Your task to perform on an android device: toggle priority inbox in the gmail app Image 0: 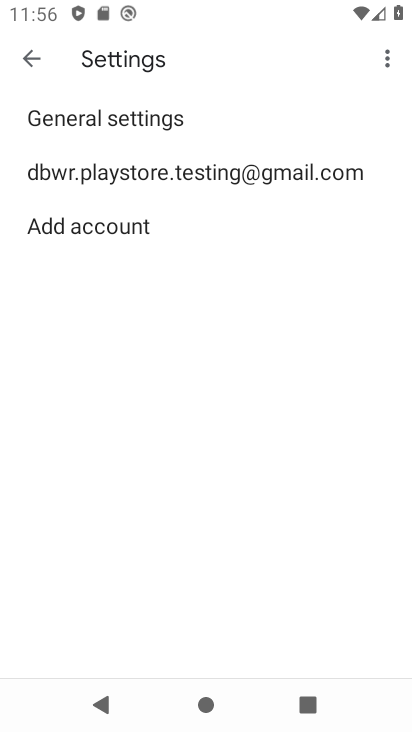
Step 0: press home button
Your task to perform on an android device: toggle priority inbox in the gmail app Image 1: 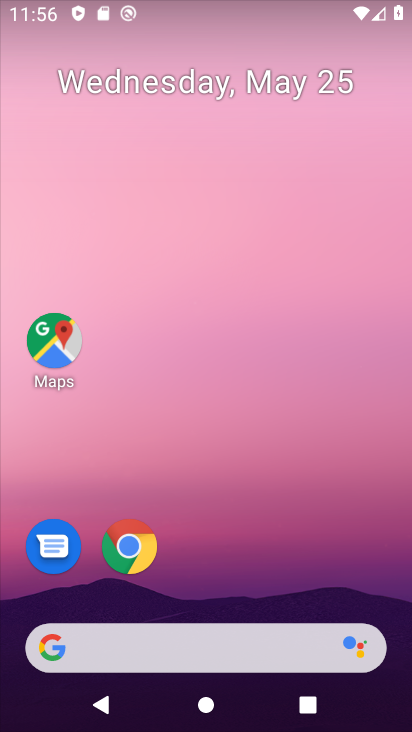
Step 1: drag from (395, 636) to (247, 74)
Your task to perform on an android device: toggle priority inbox in the gmail app Image 2: 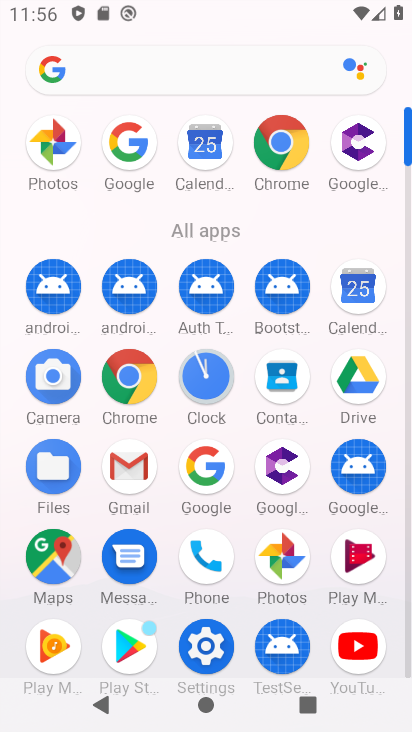
Step 2: click (134, 476)
Your task to perform on an android device: toggle priority inbox in the gmail app Image 3: 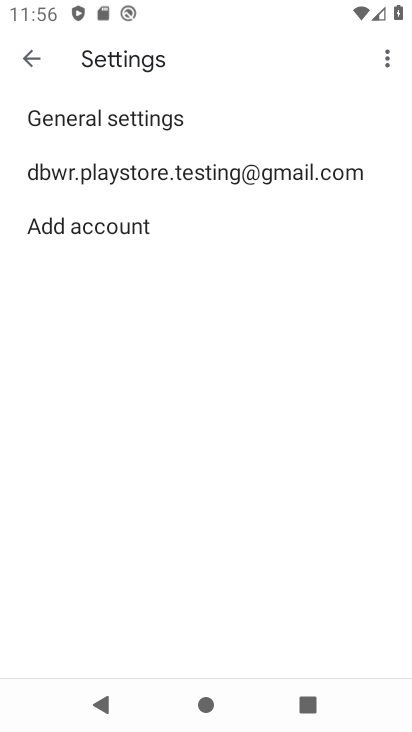
Step 3: click (140, 166)
Your task to perform on an android device: toggle priority inbox in the gmail app Image 4: 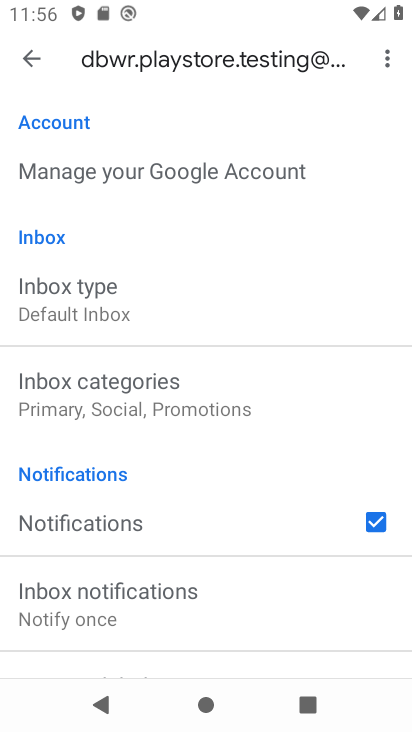
Step 4: drag from (204, 621) to (215, 497)
Your task to perform on an android device: toggle priority inbox in the gmail app Image 5: 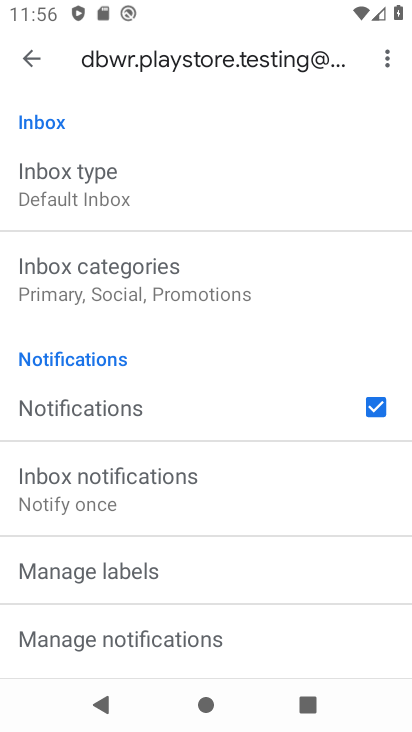
Step 5: click (127, 176)
Your task to perform on an android device: toggle priority inbox in the gmail app Image 6: 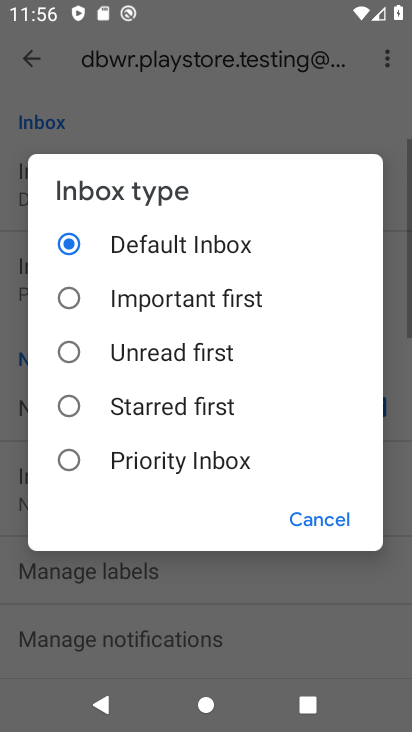
Step 6: click (176, 246)
Your task to perform on an android device: toggle priority inbox in the gmail app Image 7: 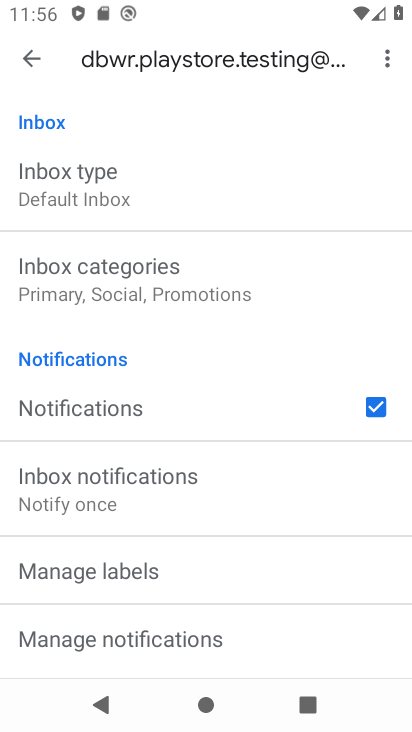
Step 7: task complete